Your task to perform on an android device: Open Google Chrome Image 0: 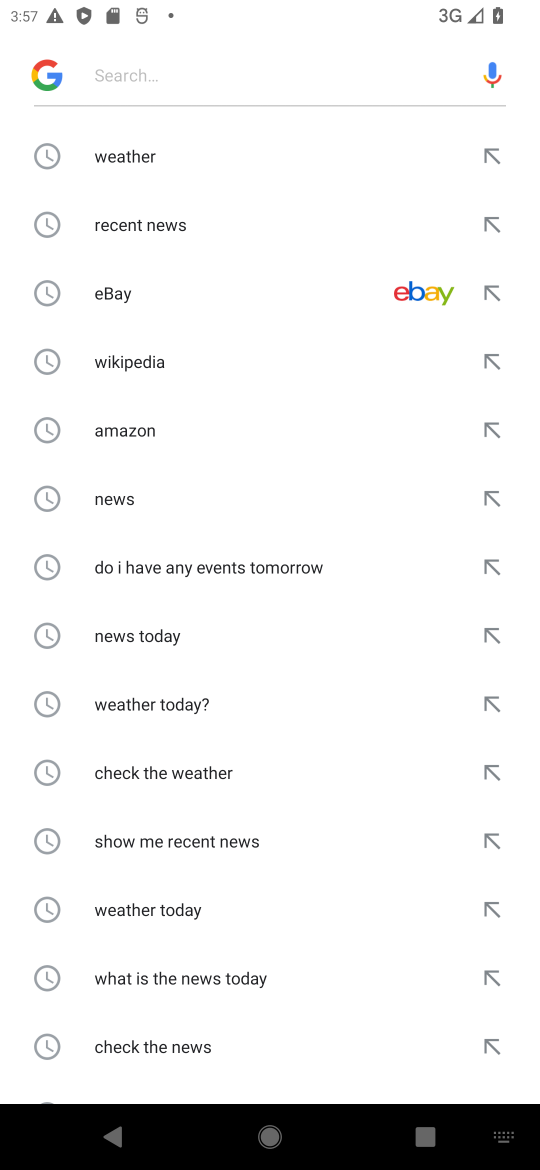
Step 0: press home button
Your task to perform on an android device: Open Google Chrome Image 1: 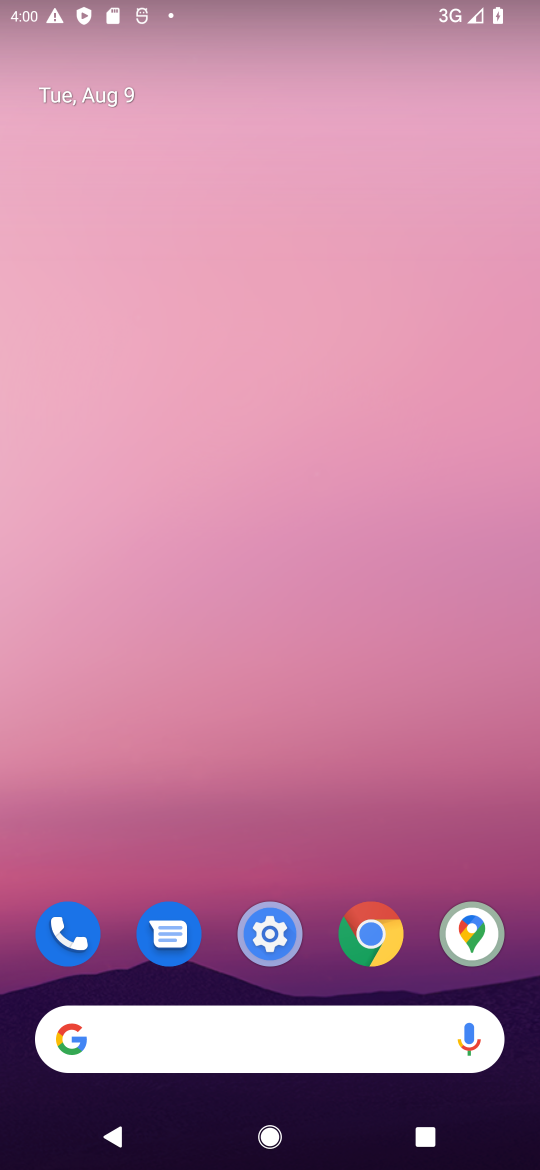
Step 1: click (373, 950)
Your task to perform on an android device: Open Google Chrome Image 2: 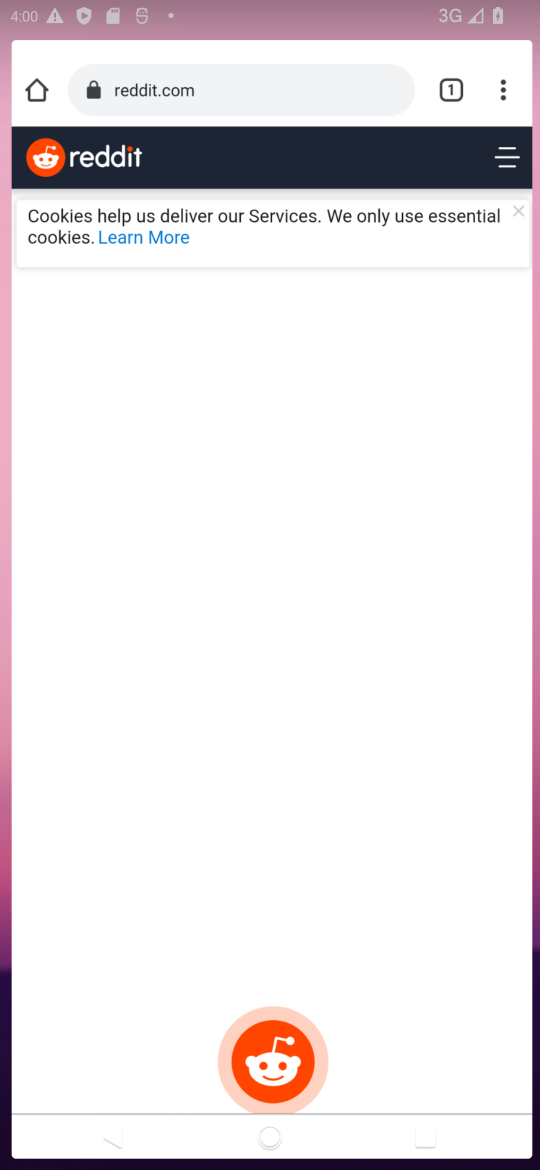
Step 2: task complete